Your task to perform on an android device: turn off data saver in the chrome app Image 0: 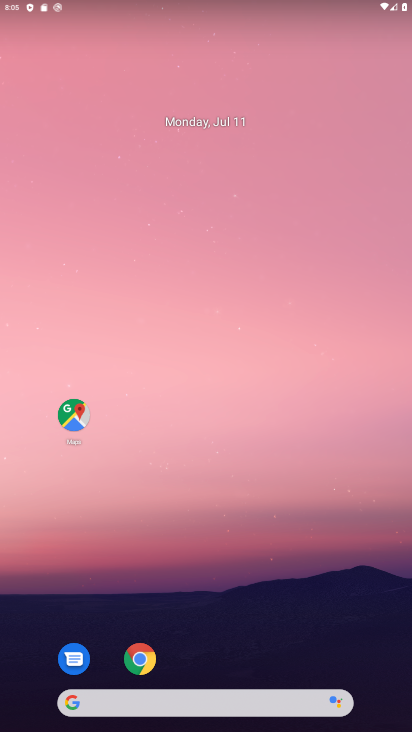
Step 0: click (271, 123)
Your task to perform on an android device: turn off data saver in the chrome app Image 1: 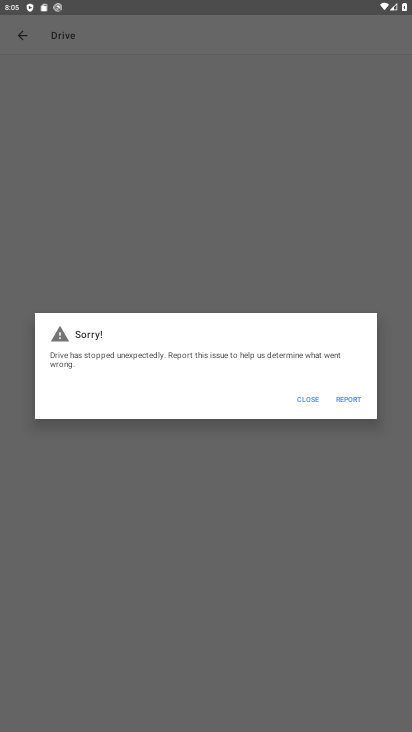
Step 1: press home button
Your task to perform on an android device: turn off data saver in the chrome app Image 2: 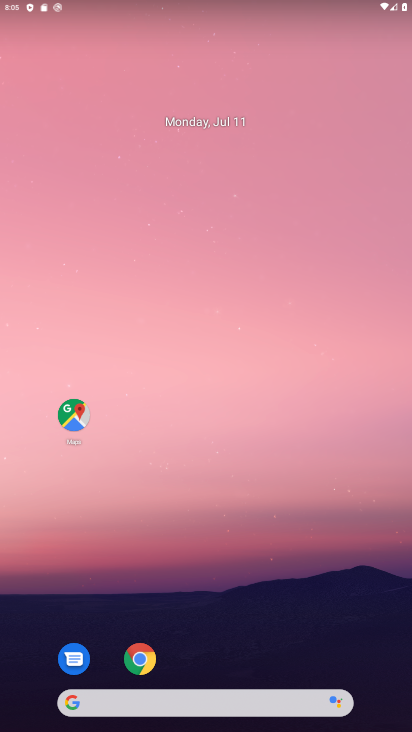
Step 2: click (123, 690)
Your task to perform on an android device: turn off data saver in the chrome app Image 3: 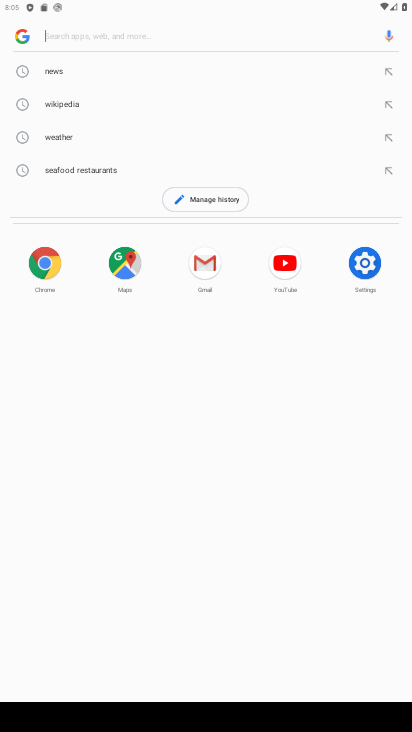
Step 3: click (81, 28)
Your task to perform on an android device: turn off data saver in the chrome app Image 4: 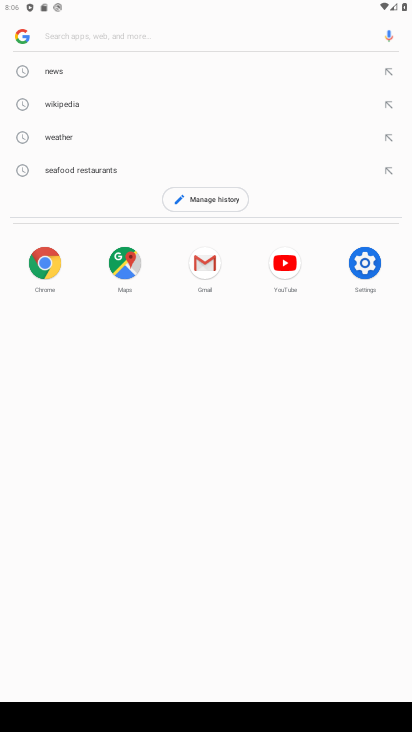
Step 4: click (74, 30)
Your task to perform on an android device: turn off data saver in the chrome app Image 5: 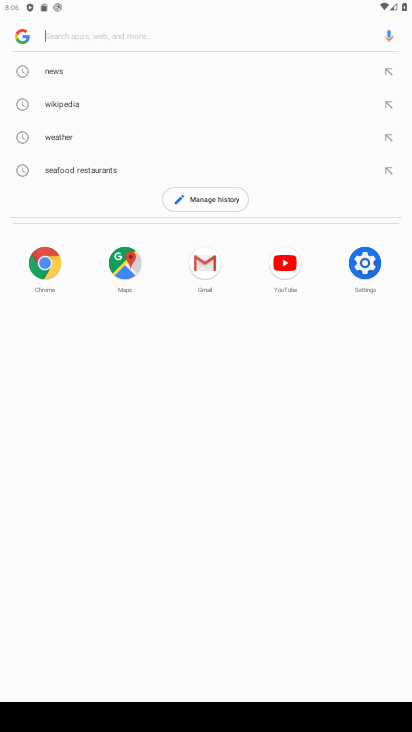
Step 5: click (90, 40)
Your task to perform on an android device: turn off data saver in the chrome app Image 6: 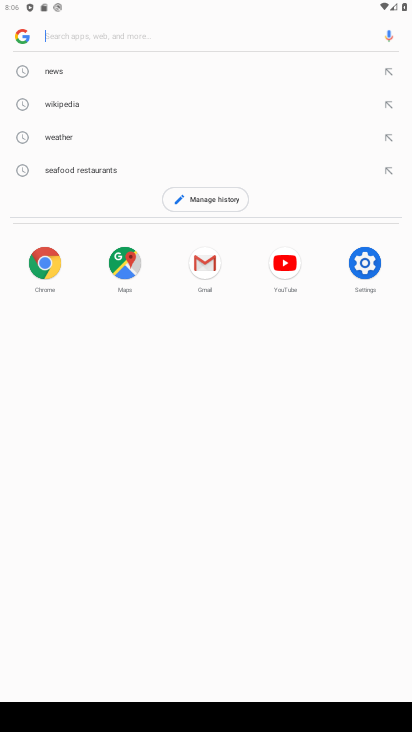
Step 6: click (87, 32)
Your task to perform on an android device: turn off data saver in the chrome app Image 7: 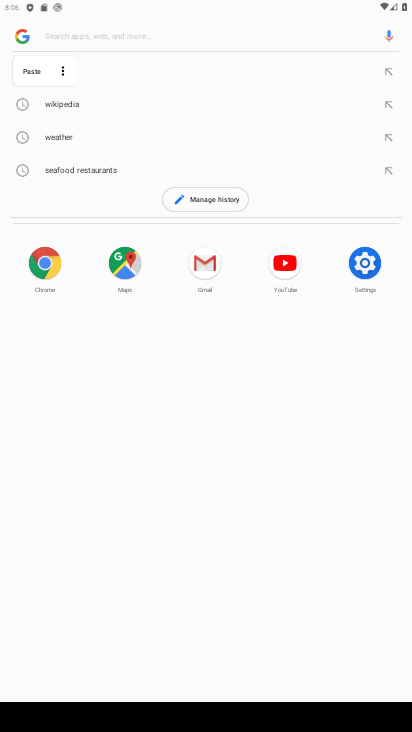
Step 7: task complete